Your task to perform on an android device: Open ESPN.com Image 0: 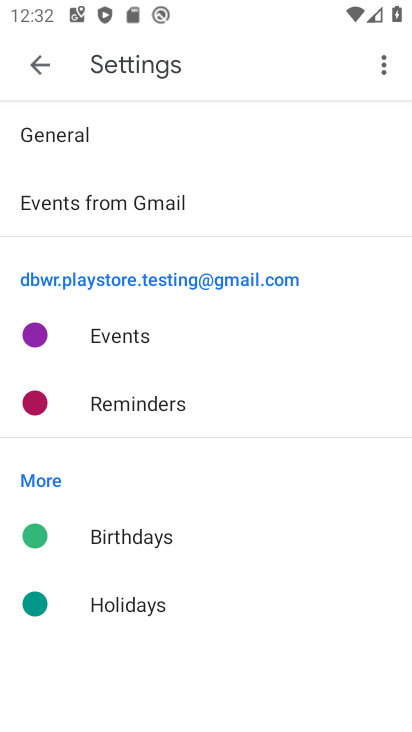
Step 0: press home button
Your task to perform on an android device: Open ESPN.com Image 1: 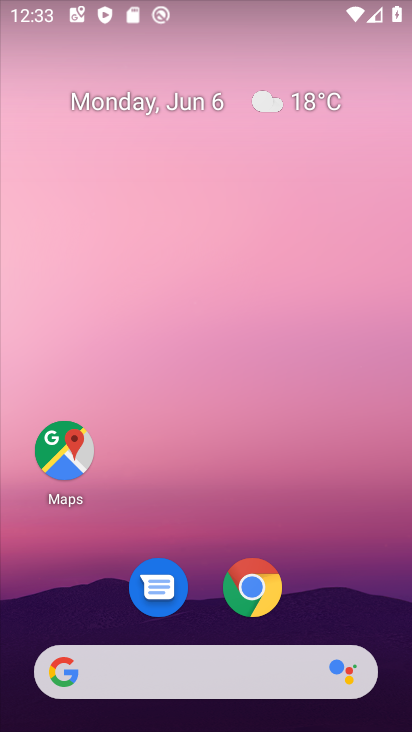
Step 1: drag from (351, 476) to (351, 160)
Your task to perform on an android device: Open ESPN.com Image 2: 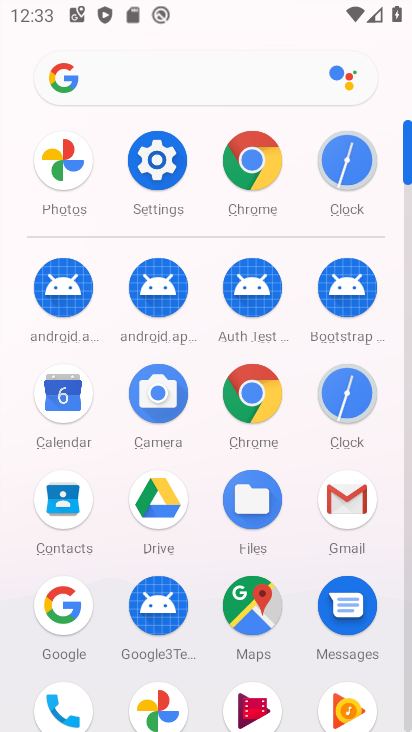
Step 2: click (245, 401)
Your task to perform on an android device: Open ESPN.com Image 3: 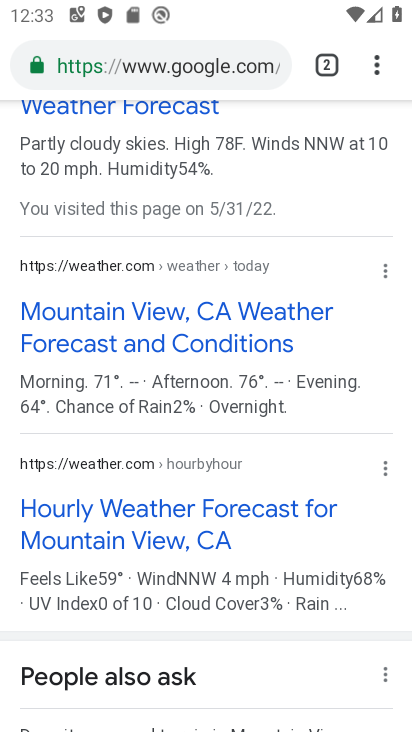
Step 3: click (251, 65)
Your task to perform on an android device: Open ESPN.com Image 4: 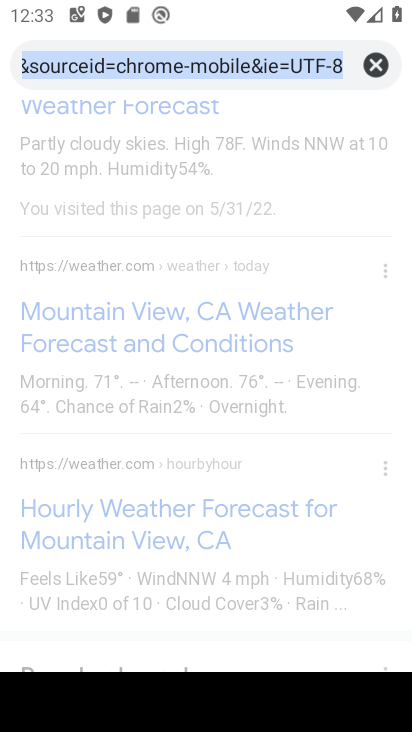
Step 4: click (375, 68)
Your task to perform on an android device: Open ESPN.com Image 5: 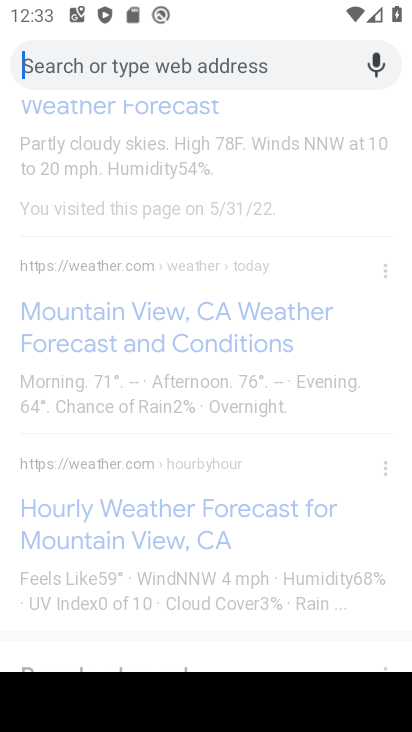
Step 5: type "espn.com"
Your task to perform on an android device: Open ESPN.com Image 6: 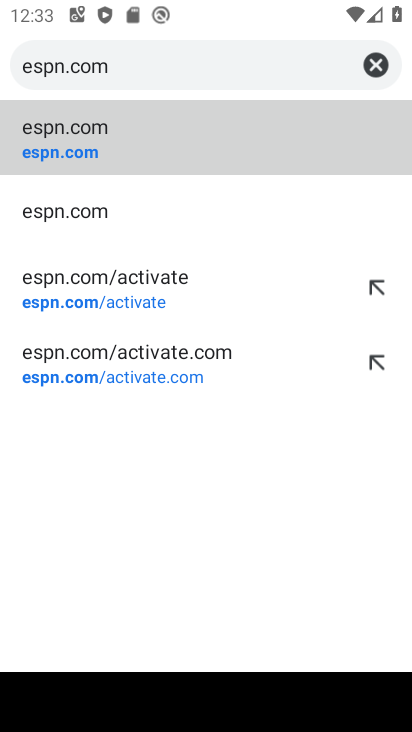
Step 6: click (71, 151)
Your task to perform on an android device: Open ESPN.com Image 7: 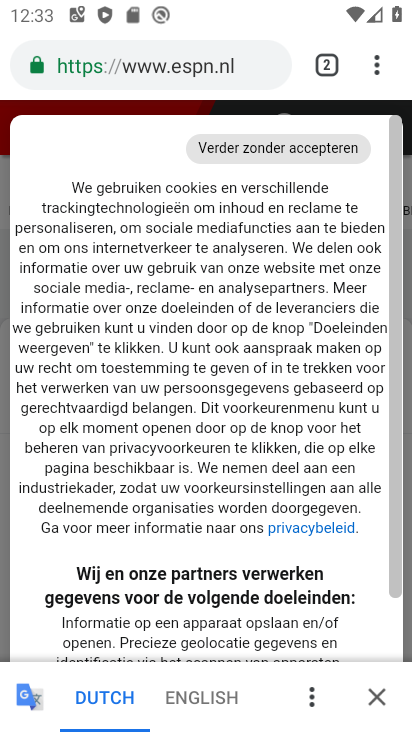
Step 7: task complete